Your task to perform on an android device: install app "File Manager" Image 0: 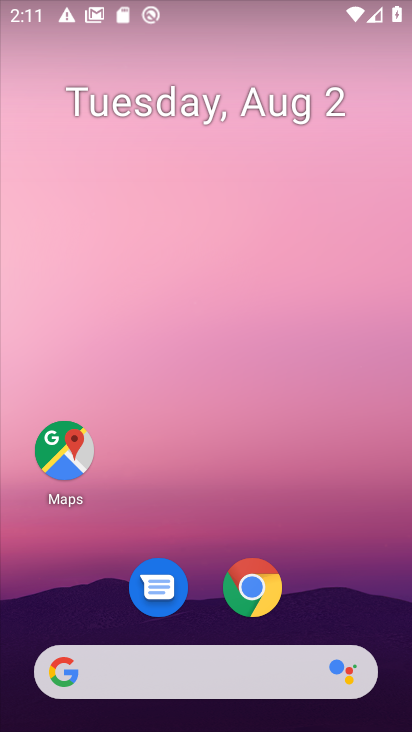
Step 0: drag from (207, 530) to (209, 117)
Your task to perform on an android device: install app "File Manager" Image 1: 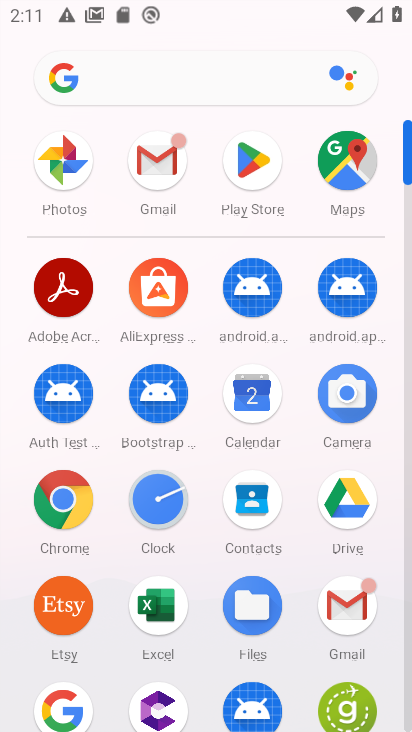
Step 1: click (251, 169)
Your task to perform on an android device: install app "File Manager" Image 2: 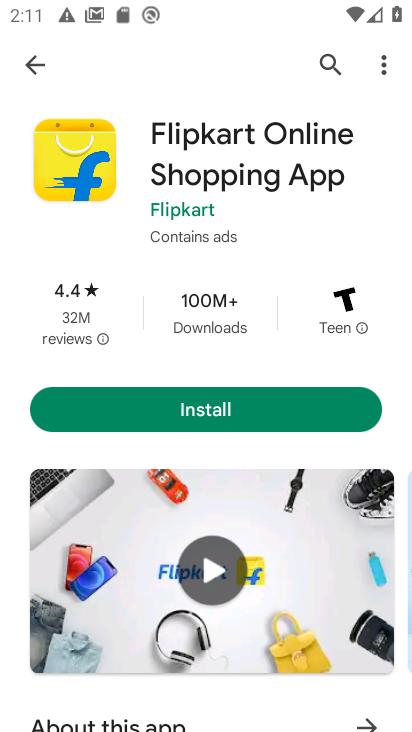
Step 2: click (336, 57)
Your task to perform on an android device: install app "File Manager" Image 3: 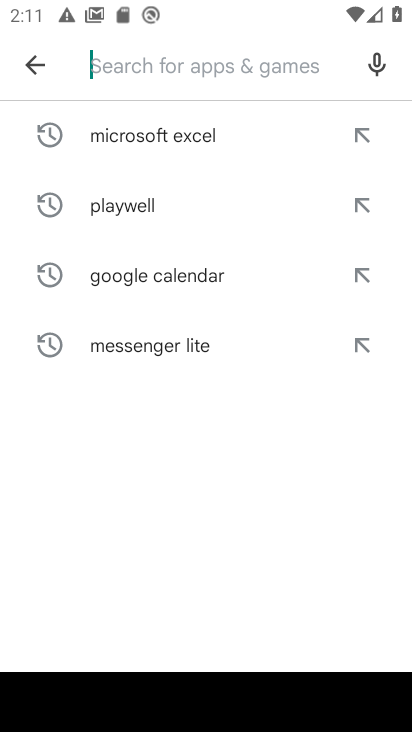
Step 3: type "File Manager"
Your task to perform on an android device: install app "File Manager" Image 4: 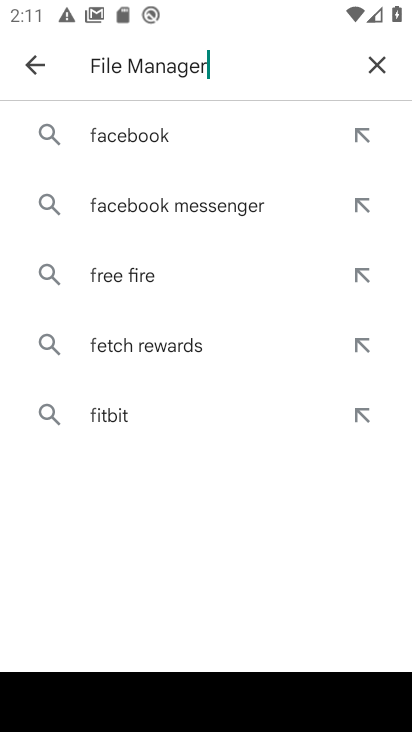
Step 4: type ""
Your task to perform on an android device: install app "File Manager" Image 5: 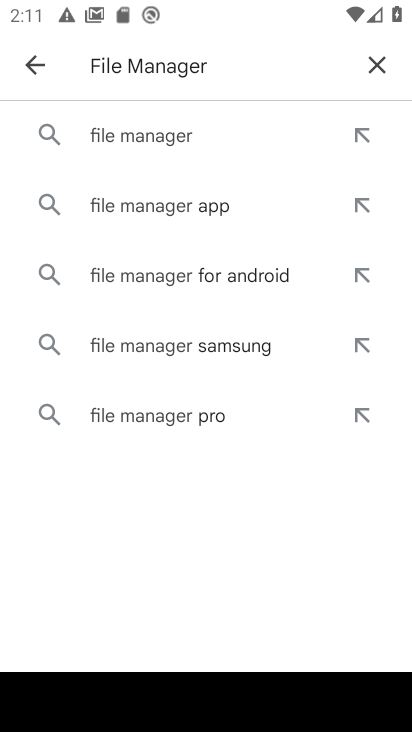
Step 5: click (136, 135)
Your task to perform on an android device: install app "File Manager" Image 6: 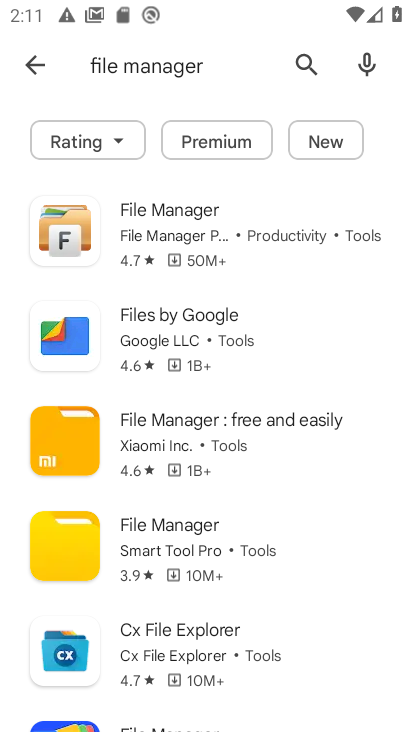
Step 6: click (219, 241)
Your task to perform on an android device: install app "File Manager" Image 7: 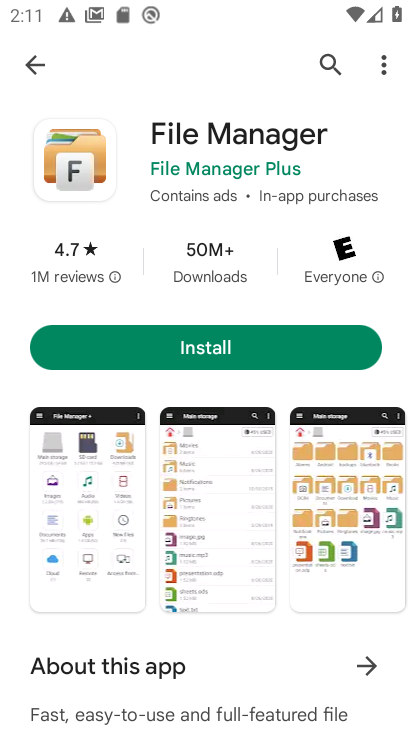
Step 7: click (237, 338)
Your task to perform on an android device: install app "File Manager" Image 8: 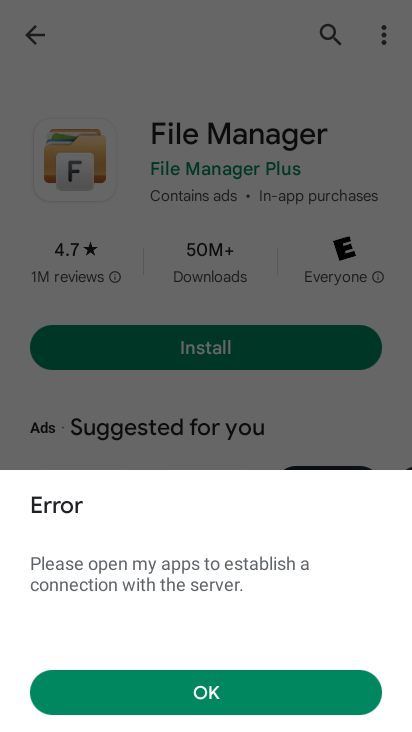
Step 8: task complete